Your task to perform on an android device: find photos in the google photos app Image 0: 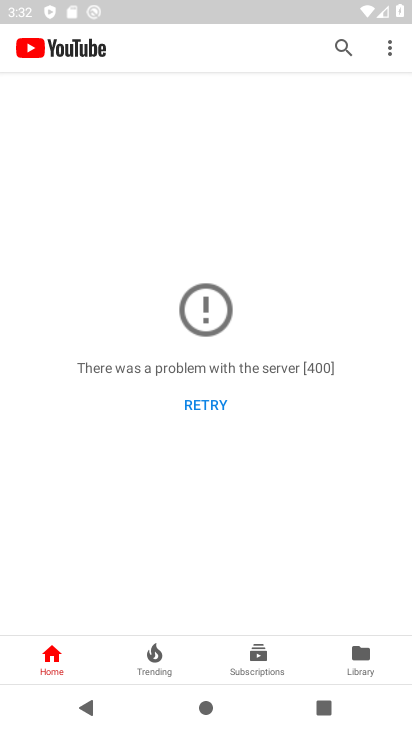
Step 0: press home button
Your task to perform on an android device: find photos in the google photos app Image 1: 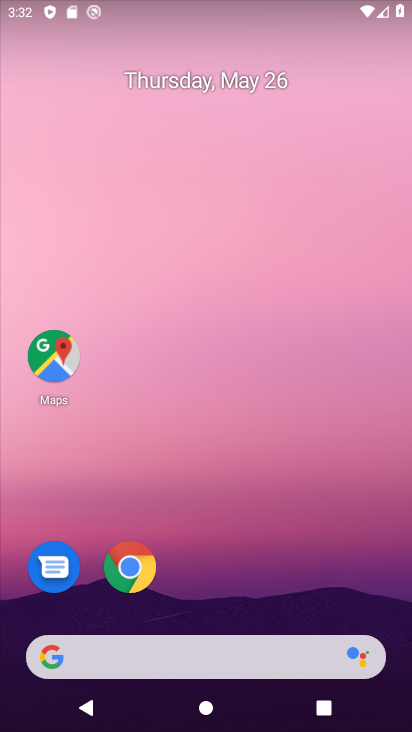
Step 1: drag from (180, 629) to (265, 246)
Your task to perform on an android device: find photos in the google photos app Image 2: 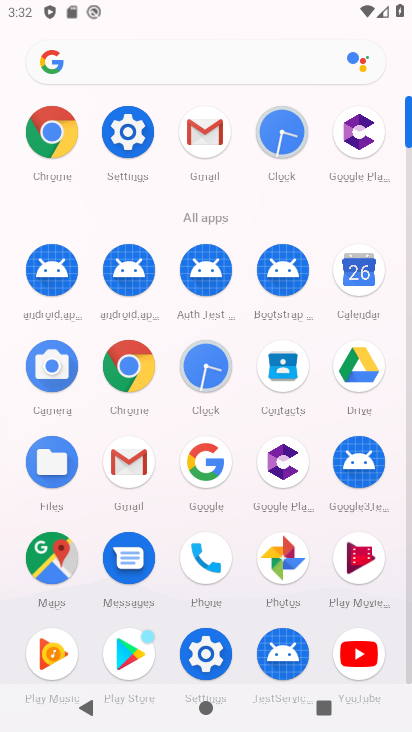
Step 2: click (290, 554)
Your task to perform on an android device: find photos in the google photos app Image 3: 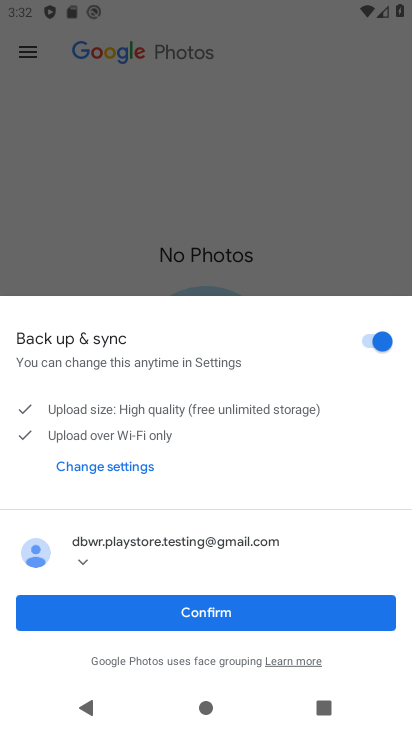
Step 3: click (223, 627)
Your task to perform on an android device: find photos in the google photos app Image 4: 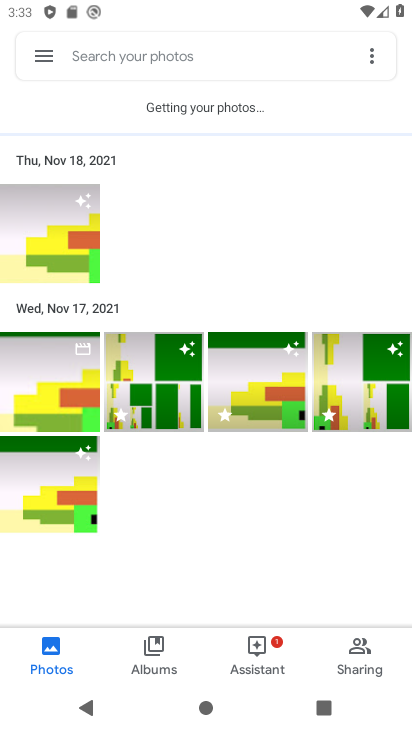
Step 4: task complete